Your task to perform on an android device: Show me productivity apps on the Play Store Image 0: 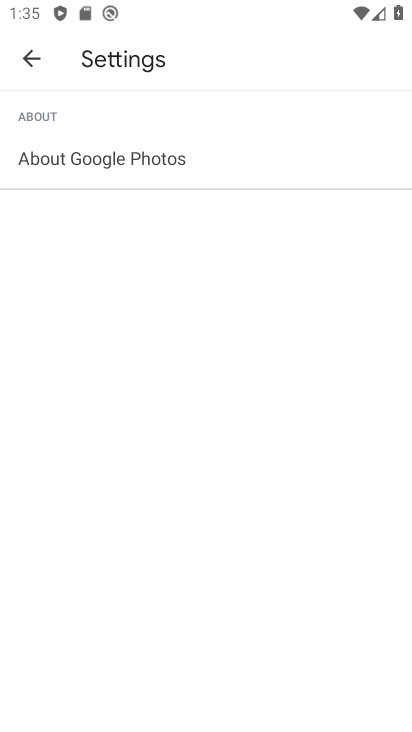
Step 0: press home button
Your task to perform on an android device: Show me productivity apps on the Play Store Image 1: 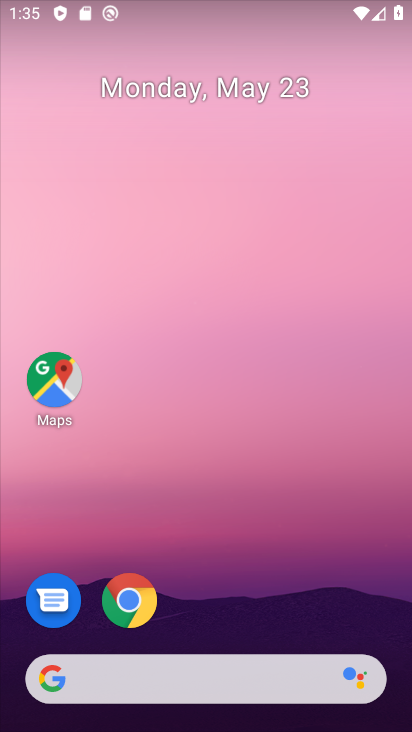
Step 1: drag from (248, 618) to (181, 174)
Your task to perform on an android device: Show me productivity apps on the Play Store Image 2: 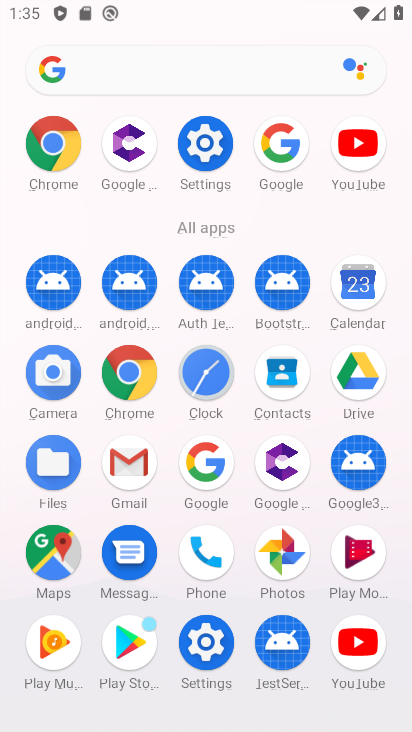
Step 2: click (118, 637)
Your task to perform on an android device: Show me productivity apps on the Play Store Image 3: 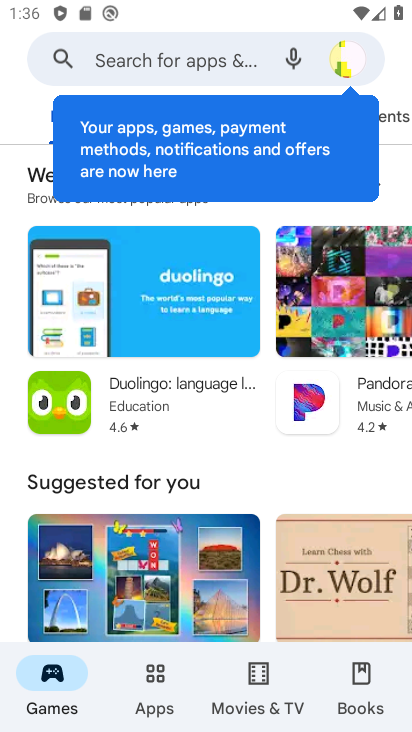
Step 3: click (153, 656)
Your task to perform on an android device: Show me productivity apps on the Play Store Image 4: 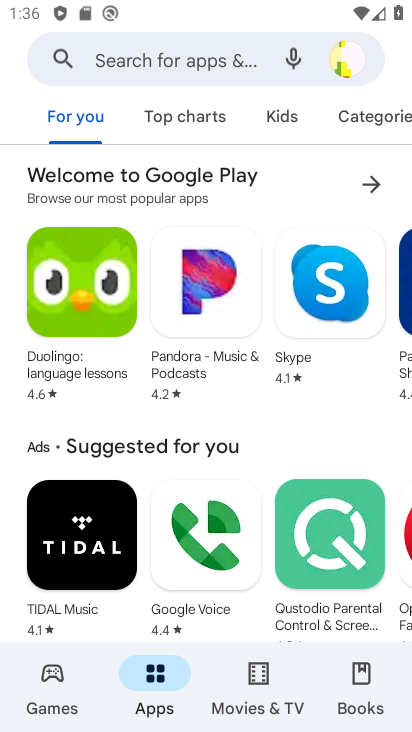
Step 4: click (357, 122)
Your task to perform on an android device: Show me productivity apps on the Play Store Image 5: 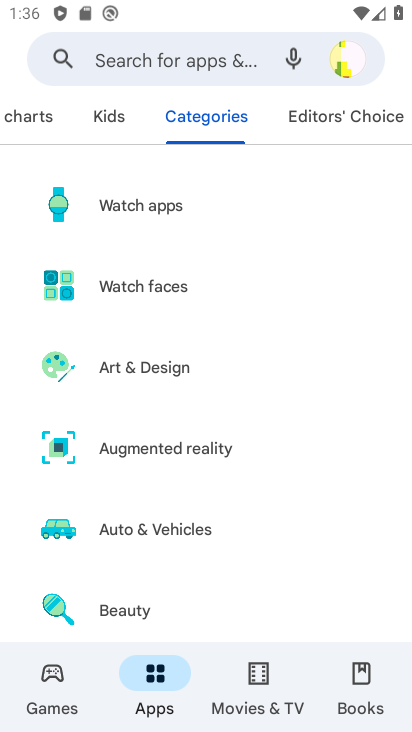
Step 5: drag from (191, 582) to (173, 163)
Your task to perform on an android device: Show me productivity apps on the Play Store Image 6: 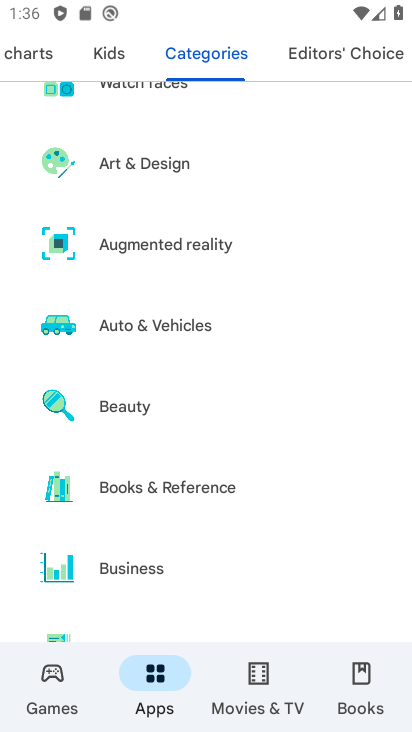
Step 6: drag from (218, 553) to (193, 76)
Your task to perform on an android device: Show me productivity apps on the Play Store Image 7: 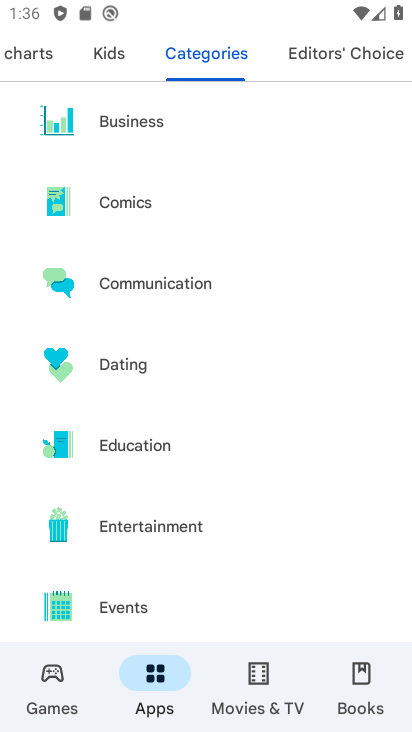
Step 7: drag from (210, 594) to (169, 138)
Your task to perform on an android device: Show me productivity apps on the Play Store Image 8: 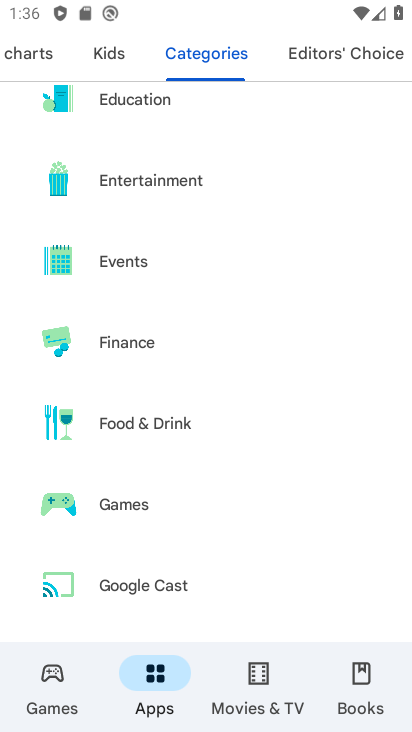
Step 8: drag from (211, 620) to (210, 204)
Your task to perform on an android device: Show me productivity apps on the Play Store Image 9: 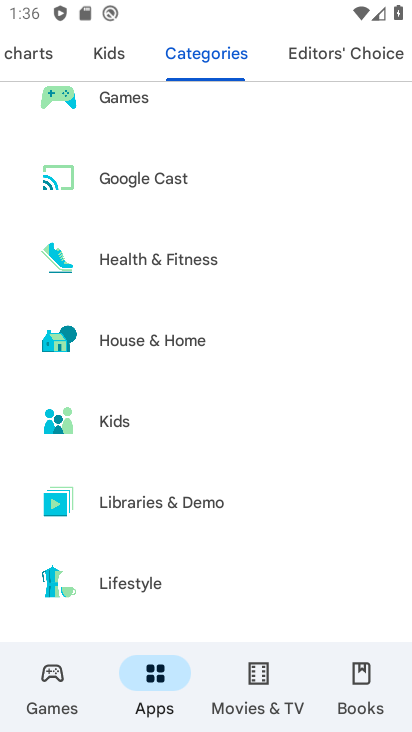
Step 9: drag from (213, 624) to (205, 226)
Your task to perform on an android device: Show me productivity apps on the Play Store Image 10: 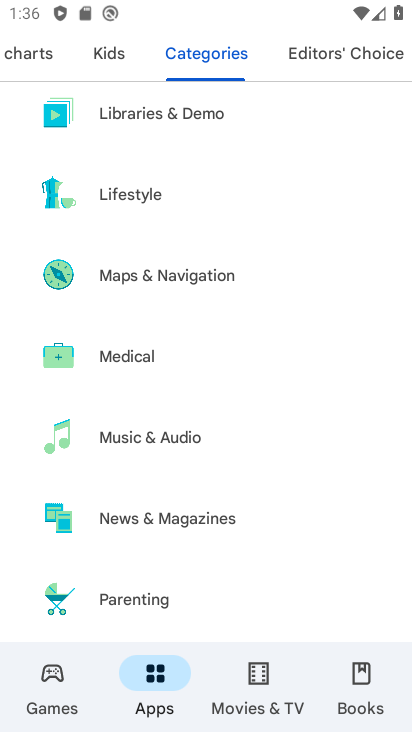
Step 10: drag from (212, 593) to (174, 184)
Your task to perform on an android device: Show me productivity apps on the Play Store Image 11: 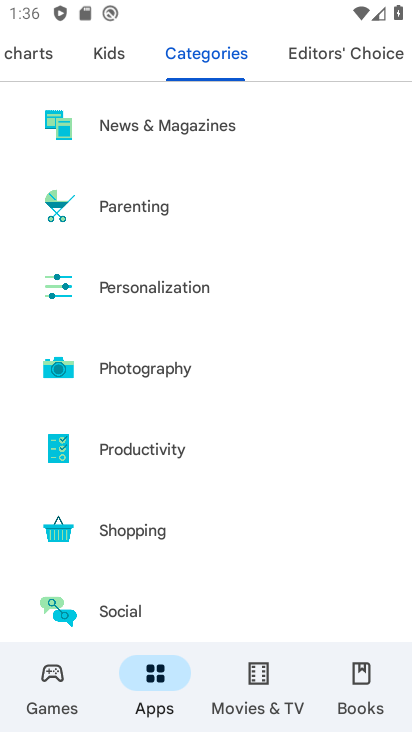
Step 11: click (194, 440)
Your task to perform on an android device: Show me productivity apps on the Play Store Image 12: 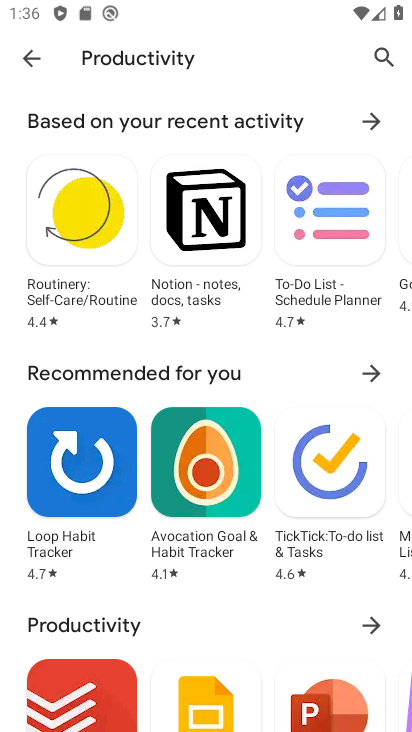
Step 12: task complete